Your task to perform on an android device: Open Google Chrome and click the shortcut for Amazon.com Image 0: 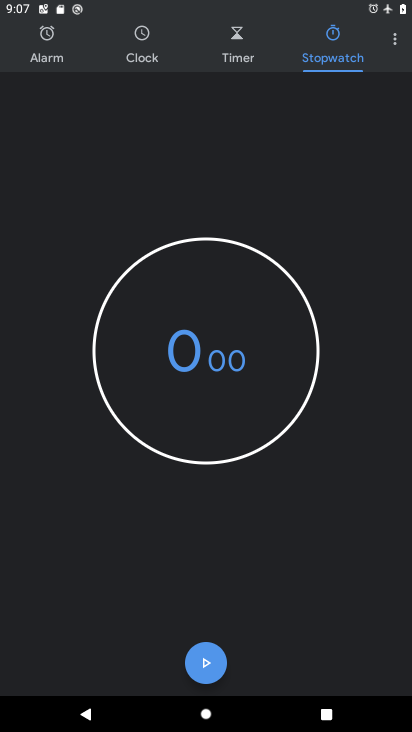
Step 0: press home button
Your task to perform on an android device: Open Google Chrome and click the shortcut for Amazon.com Image 1: 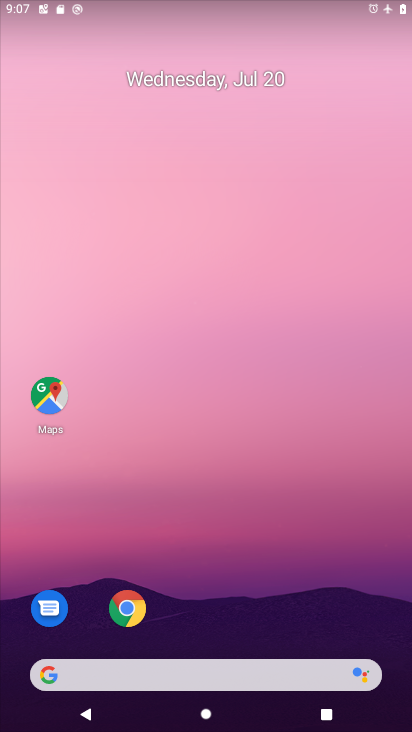
Step 1: click (128, 617)
Your task to perform on an android device: Open Google Chrome and click the shortcut for Amazon.com Image 2: 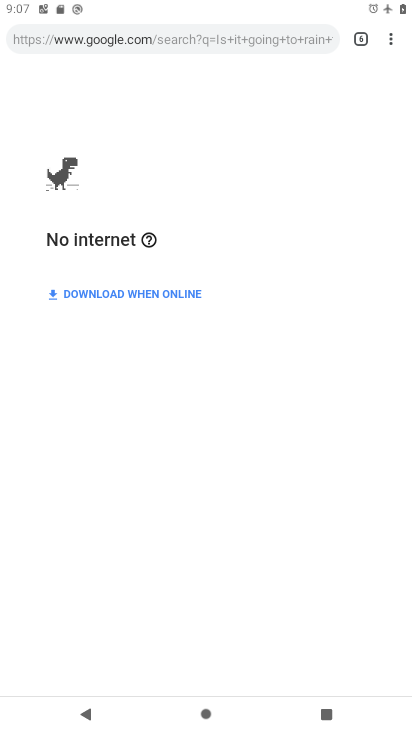
Step 2: click (393, 35)
Your task to perform on an android device: Open Google Chrome and click the shortcut for Amazon.com Image 3: 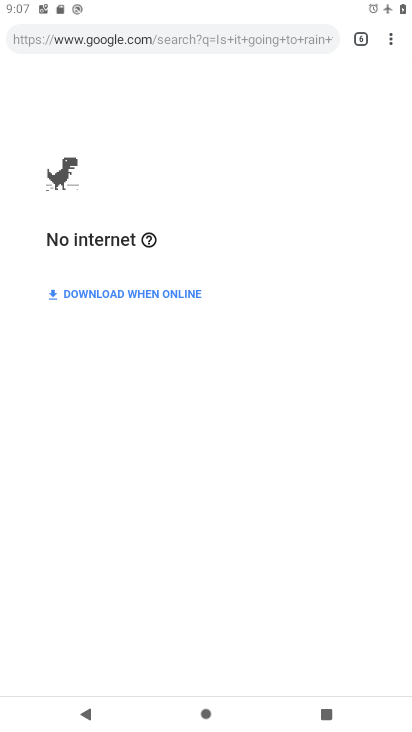
Step 3: click (396, 36)
Your task to perform on an android device: Open Google Chrome and click the shortcut for Amazon.com Image 4: 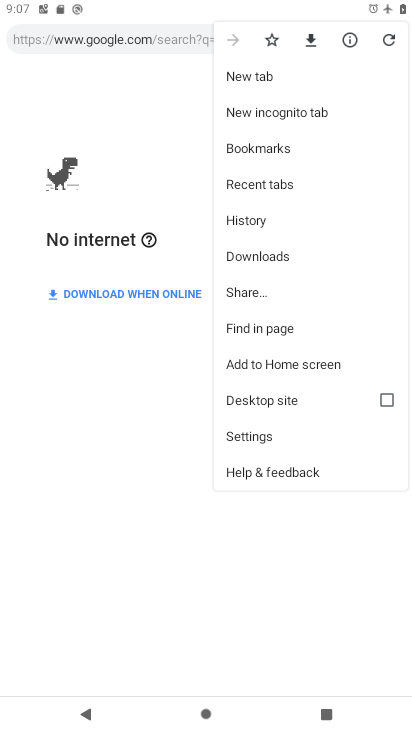
Step 4: click (286, 76)
Your task to perform on an android device: Open Google Chrome and click the shortcut for Amazon.com Image 5: 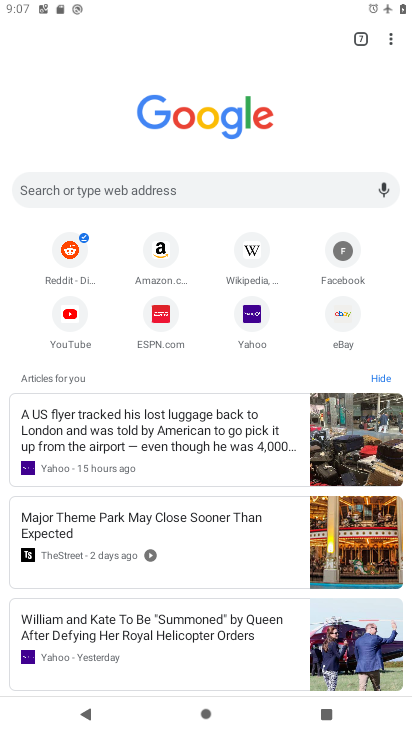
Step 5: click (157, 249)
Your task to perform on an android device: Open Google Chrome and click the shortcut for Amazon.com Image 6: 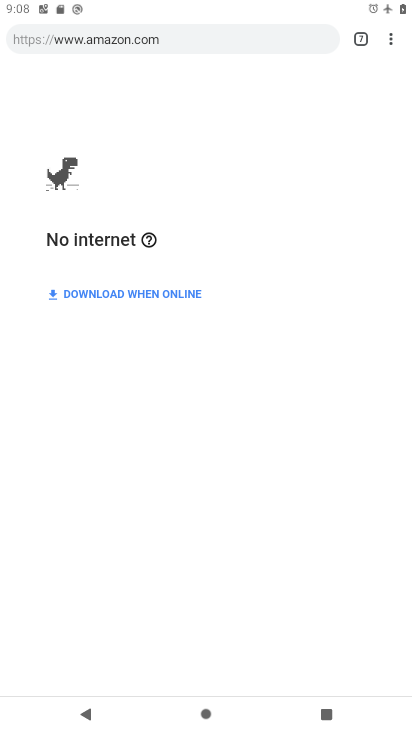
Step 6: task complete